Your task to perform on an android device: What is the recent news? Image 0: 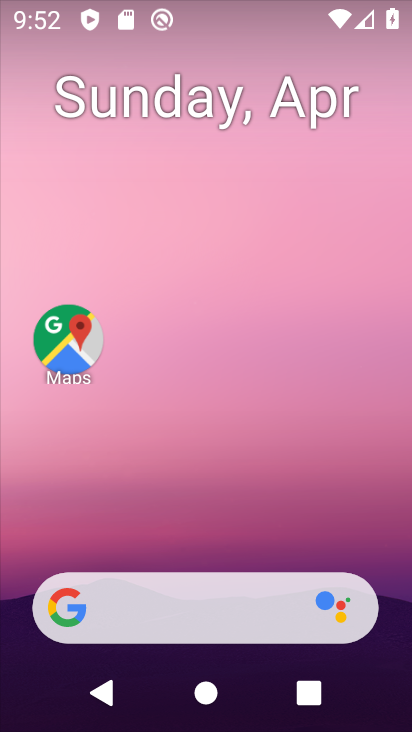
Step 0: drag from (10, 410) to (348, 414)
Your task to perform on an android device: What is the recent news? Image 1: 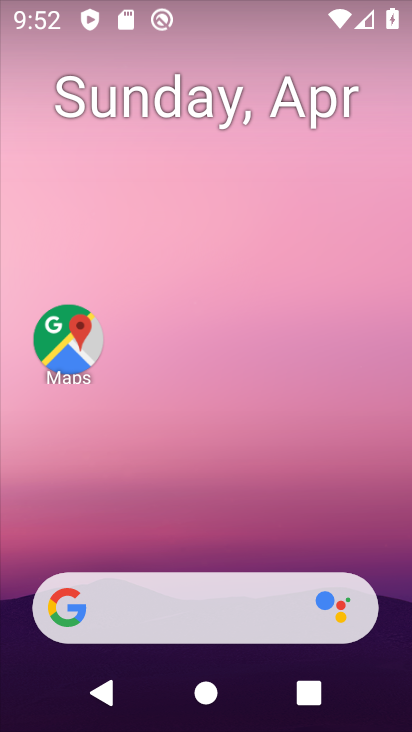
Step 1: drag from (1, 282) to (387, 206)
Your task to perform on an android device: What is the recent news? Image 2: 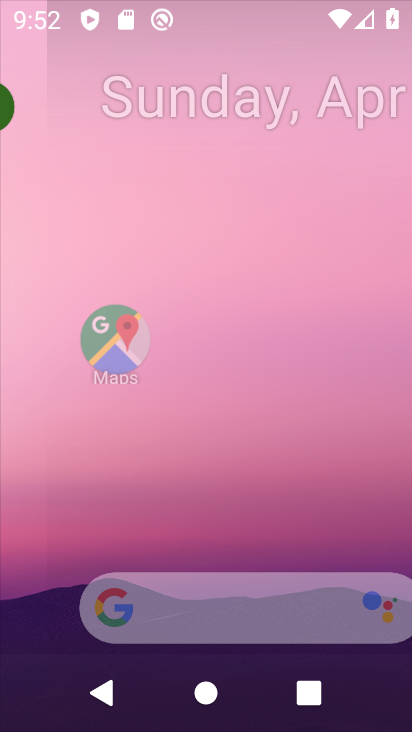
Step 2: drag from (132, 342) to (317, 336)
Your task to perform on an android device: What is the recent news? Image 3: 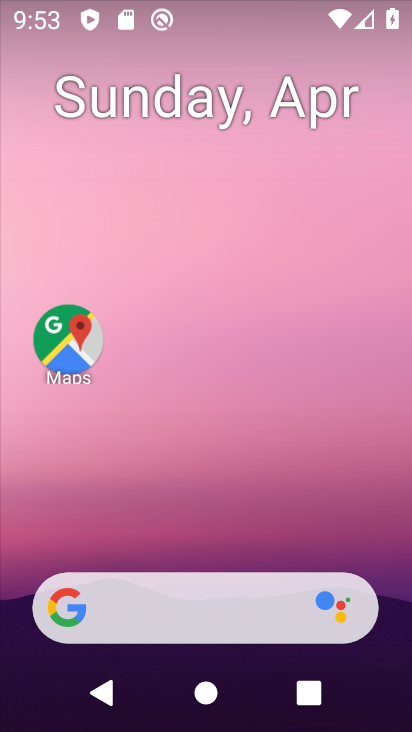
Step 3: drag from (1, 256) to (350, 715)
Your task to perform on an android device: What is the recent news? Image 4: 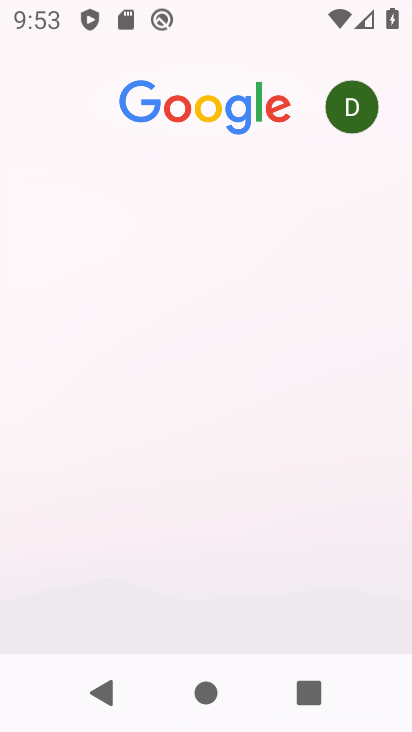
Step 4: click (114, 278)
Your task to perform on an android device: What is the recent news? Image 5: 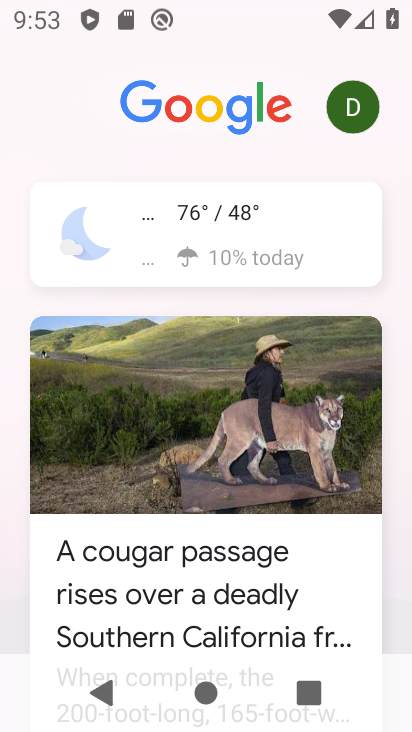
Step 5: task complete